Your task to perform on an android device: Go to Maps Image 0: 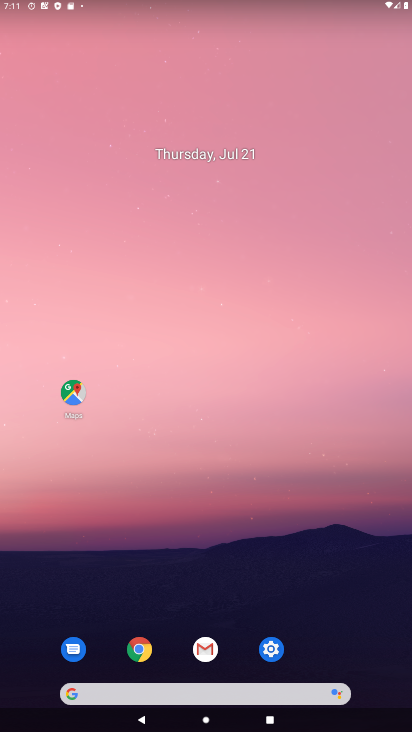
Step 0: click (59, 386)
Your task to perform on an android device: Go to Maps Image 1: 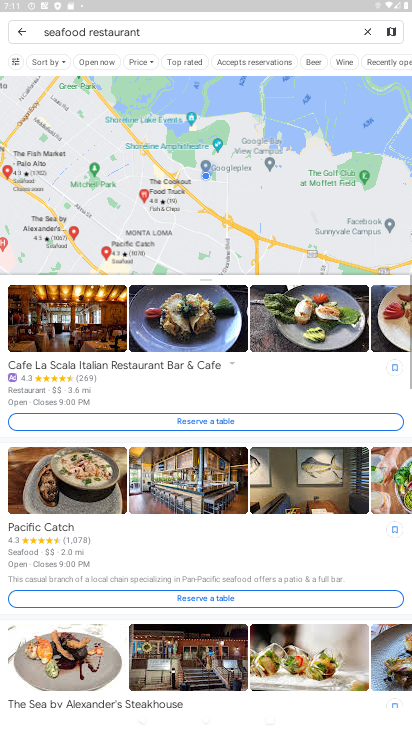
Step 1: click (17, 31)
Your task to perform on an android device: Go to Maps Image 2: 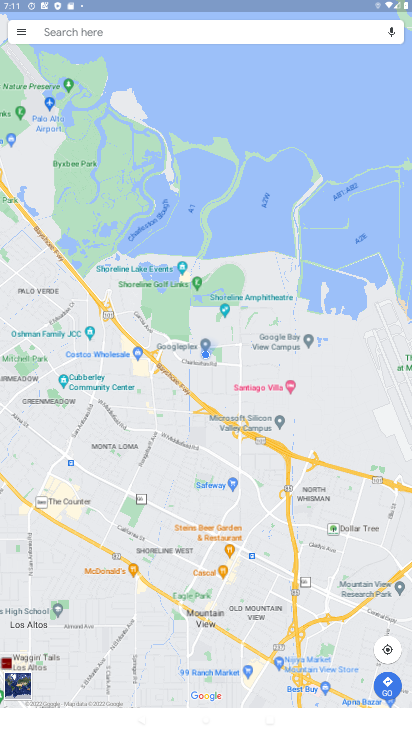
Step 2: task complete